Your task to perform on an android device: Open calendar and show me the second week of next month Image 0: 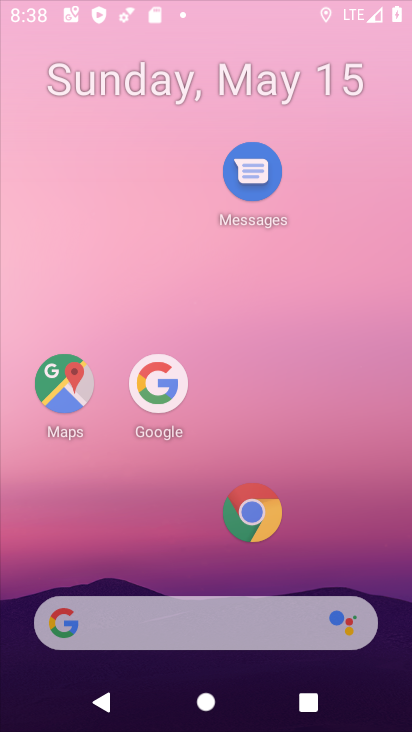
Step 0: press home button
Your task to perform on an android device: Open calendar and show me the second week of next month Image 1: 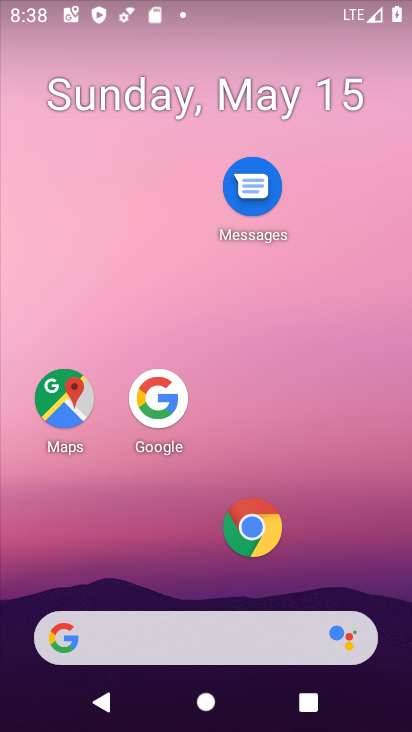
Step 1: drag from (195, 643) to (369, 185)
Your task to perform on an android device: Open calendar and show me the second week of next month Image 2: 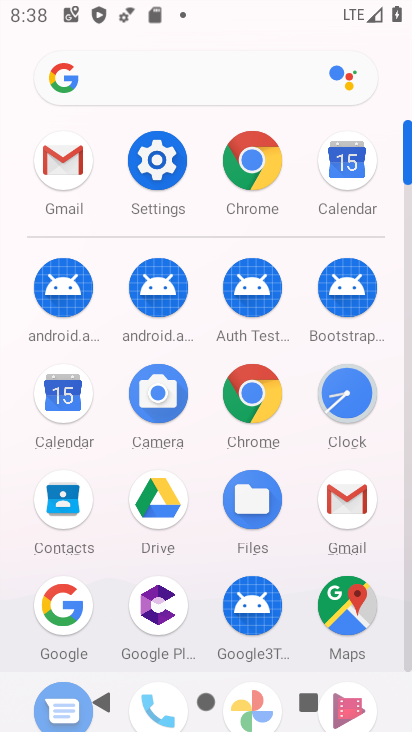
Step 2: click (66, 399)
Your task to perform on an android device: Open calendar and show me the second week of next month Image 3: 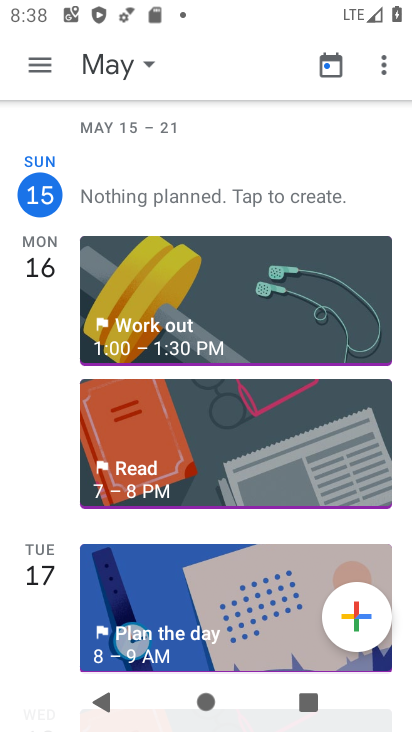
Step 3: click (115, 65)
Your task to perform on an android device: Open calendar and show me the second week of next month Image 4: 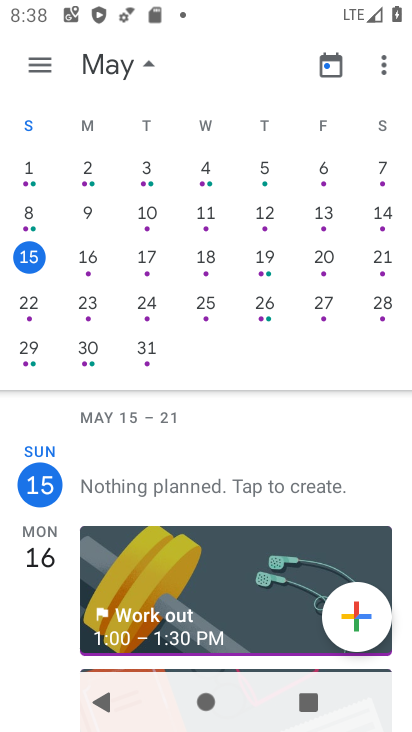
Step 4: drag from (231, 223) to (0, 225)
Your task to perform on an android device: Open calendar and show me the second week of next month Image 5: 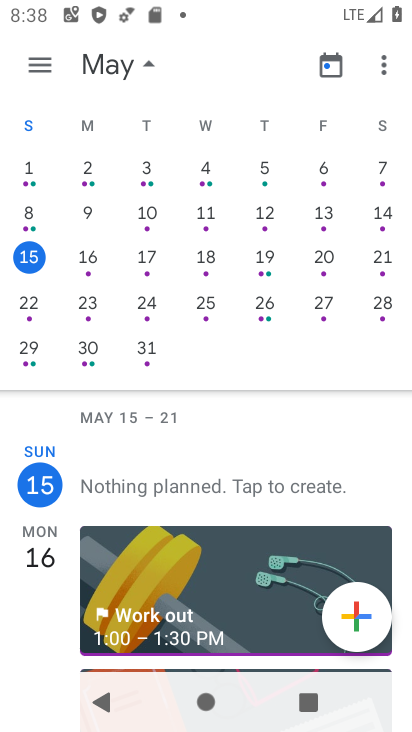
Step 5: drag from (360, 230) to (0, 255)
Your task to perform on an android device: Open calendar and show me the second week of next month Image 6: 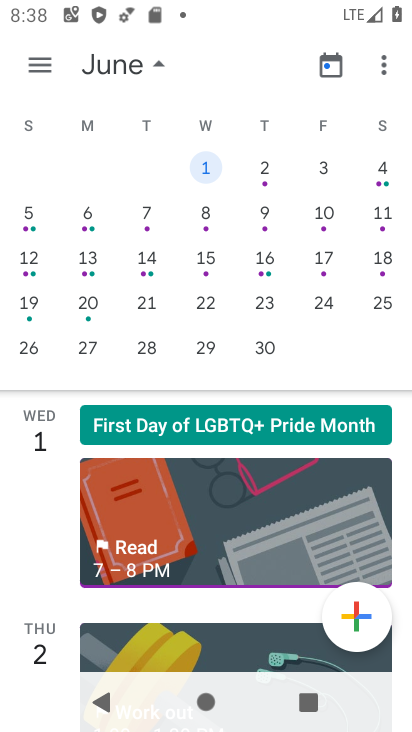
Step 6: click (29, 218)
Your task to perform on an android device: Open calendar and show me the second week of next month Image 7: 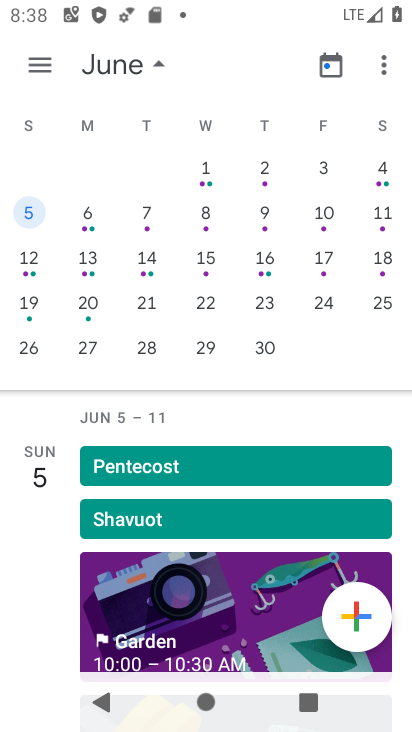
Step 7: click (41, 57)
Your task to perform on an android device: Open calendar and show me the second week of next month Image 8: 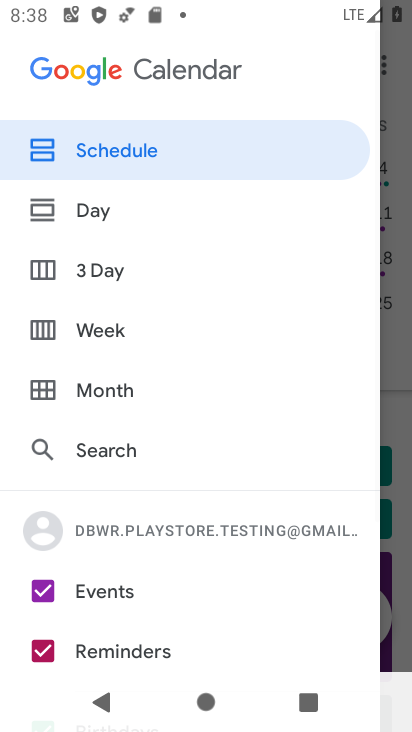
Step 8: click (103, 328)
Your task to perform on an android device: Open calendar and show me the second week of next month Image 9: 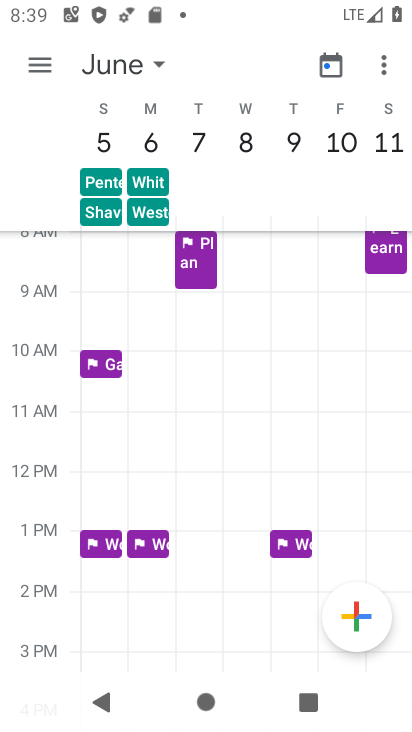
Step 9: task complete